Your task to perform on an android device: turn smart compose on in the gmail app Image 0: 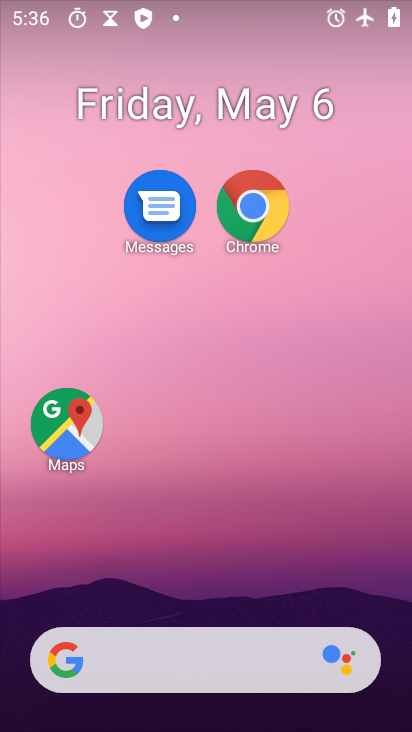
Step 0: drag from (237, 554) to (239, 195)
Your task to perform on an android device: turn smart compose on in the gmail app Image 1: 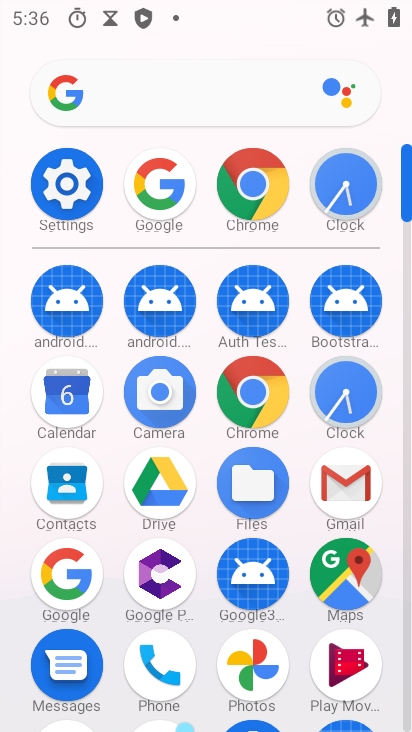
Step 1: click (334, 484)
Your task to perform on an android device: turn smart compose on in the gmail app Image 2: 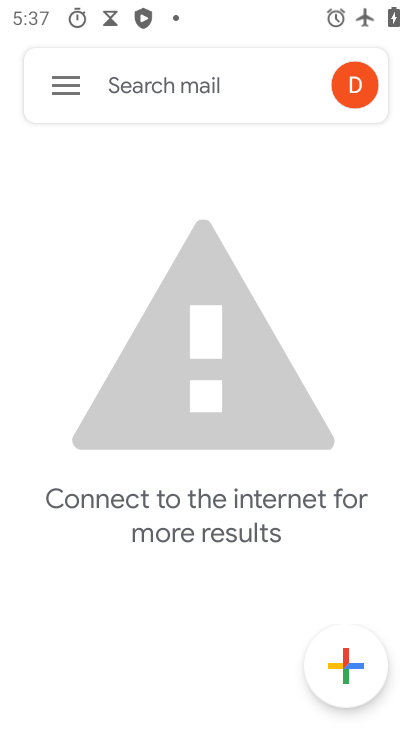
Step 2: click (51, 73)
Your task to perform on an android device: turn smart compose on in the gmail app Image 3: 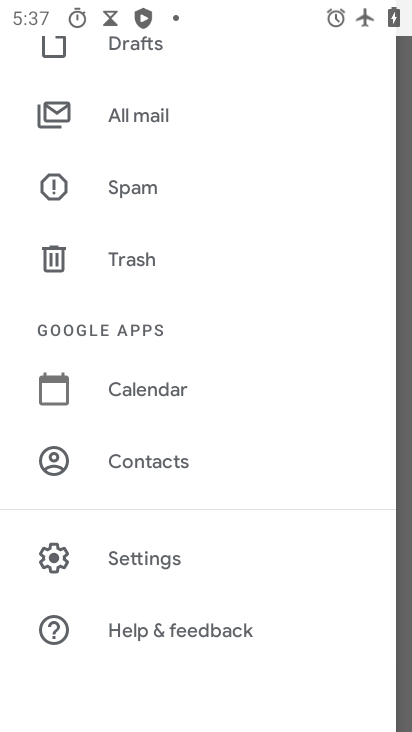
Step 3: click (143, 560)
Your task to perform on an android device: turn smart compose on in the gmail app Image 4: 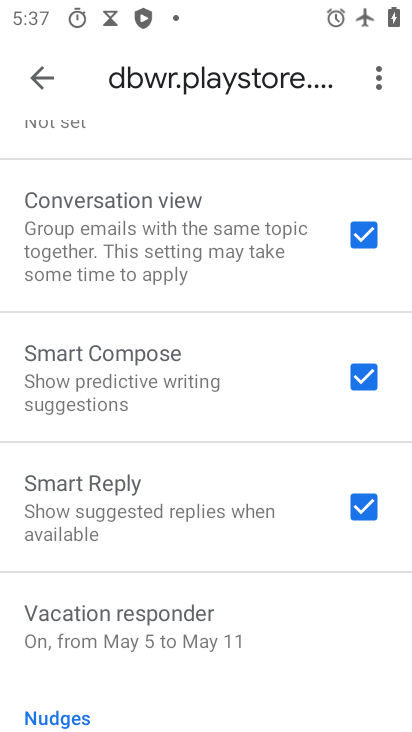
Step 4: task complete